Your task to perform on an android device: Open the phone app and click the voicemail tab. Image 0: 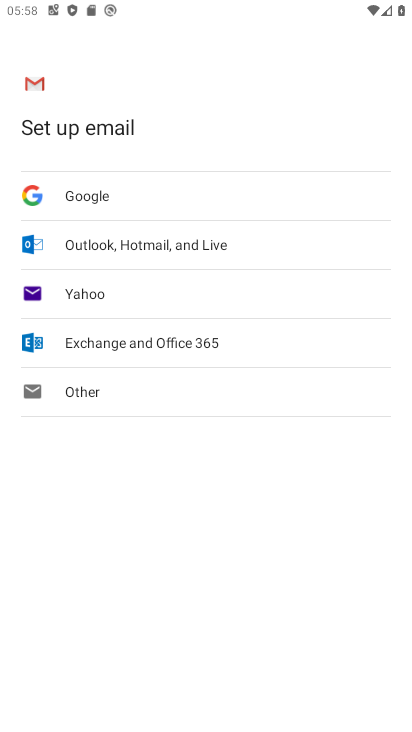
Step 0: press home button
Your task to perform on an android device: Open the phone app and click the voicemail tab. Image 1: 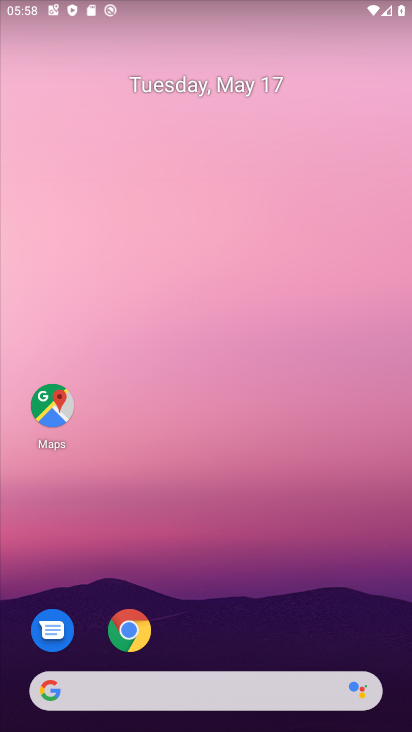
Step 1: drag from (178, 618) to (262, 43)
Your task to perform on an android device: Open the phone app and click the voicemail tab. Image 2: 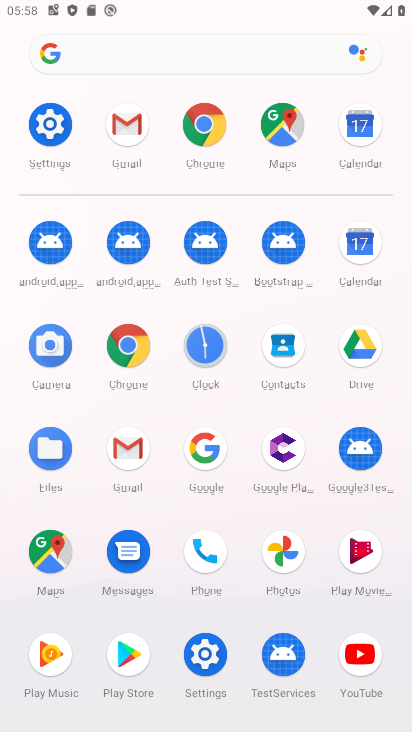
Step 2: click (201, 560)
Your task to perform on an android device: Open the phone app and click the voicemail tab. Image 3: 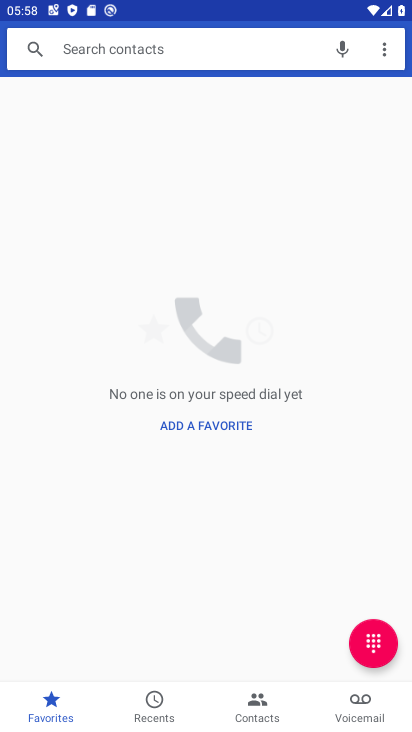
Step 3: click (361, 696)
Your task to perform on an android device: Open the phone app and click the voicemail tab. Image 4: 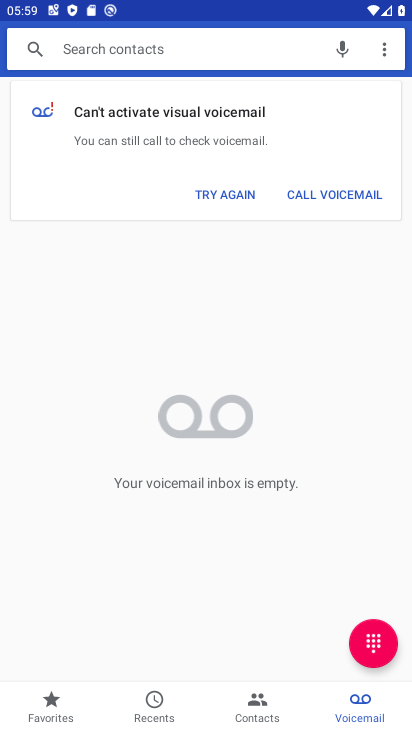
Step 4: task complete